Your task to perform on an android device: Go to accessibility settings Image 0: 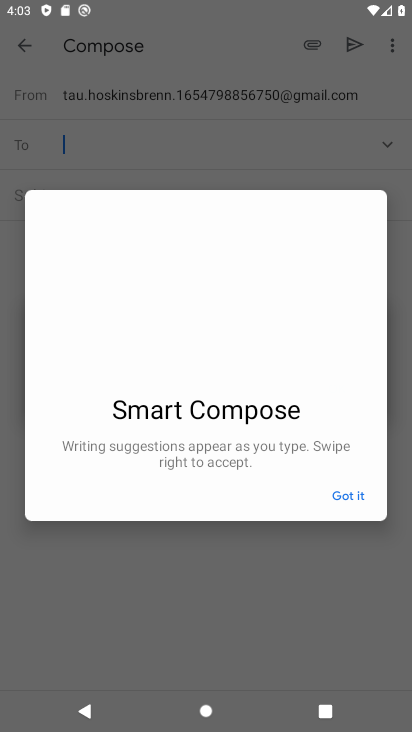
Step 0: click (204, 335)
Your task to perform on an android device: Go to accessibility settings Image 1: 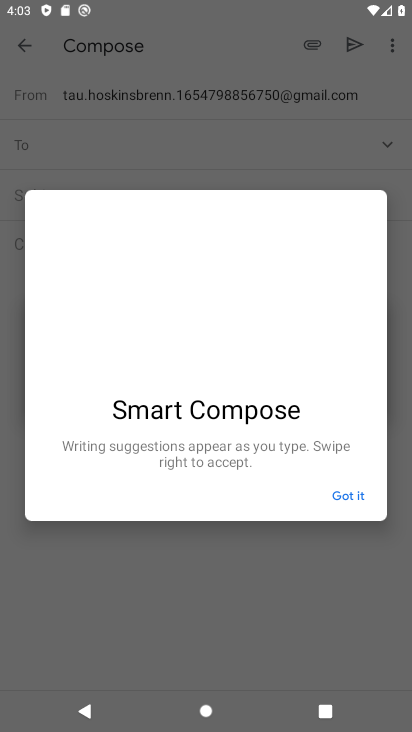
Step 1: click (351, 488)
Your task to perform on an android device: Go to accessibility settings Image 2: 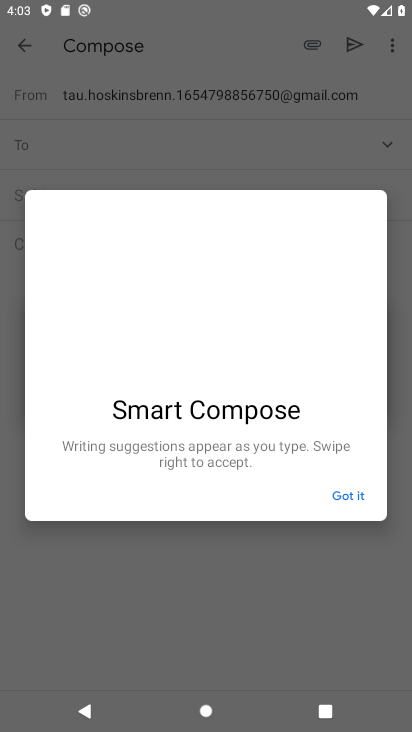
Step 2: click (351, 488)
Your task to perform on an android device: Go to accessibility settings Image 3: 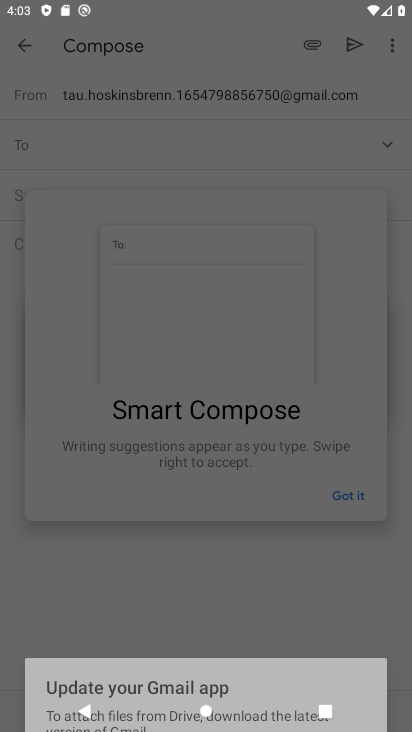
Step 3: click (351, 480)
Your task to perform on an android device: Go to accessibility settings Image 4: 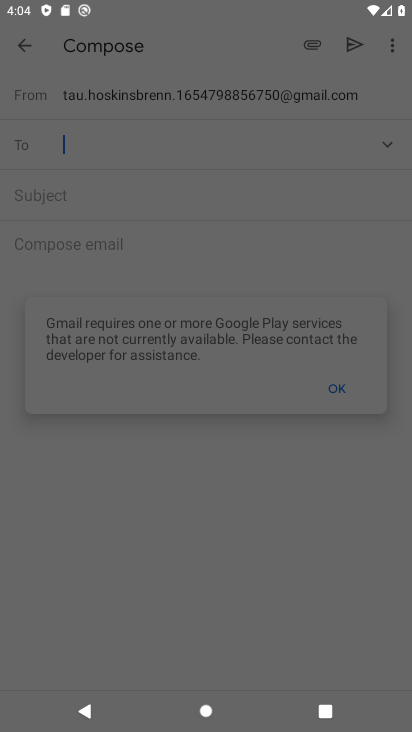
Step 4: press back button
Your task to perform on an android device: Go to accessibility settings Image 5: 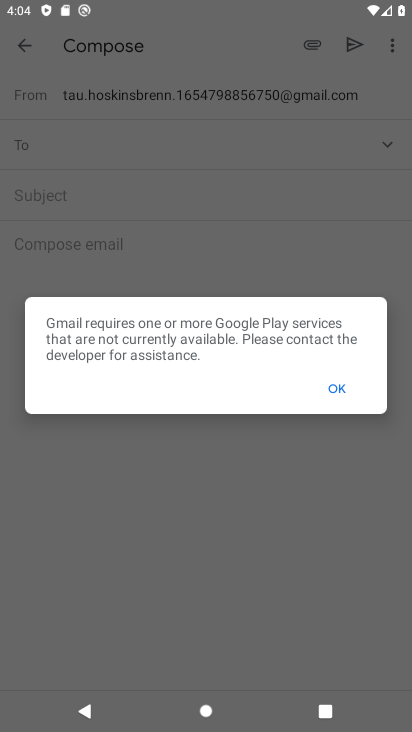
Step 5: press back button
Your task to perform on an android device: Go to accessibility settings Image 6: 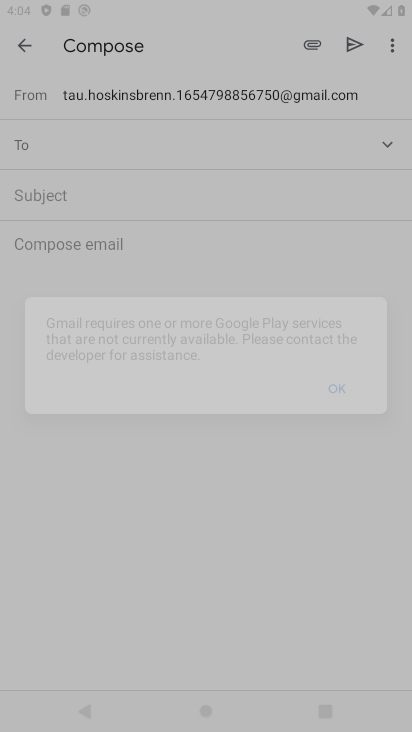
Step 6: press back button
Your task to perform on an android device: Go to accessibility settings Image 7: 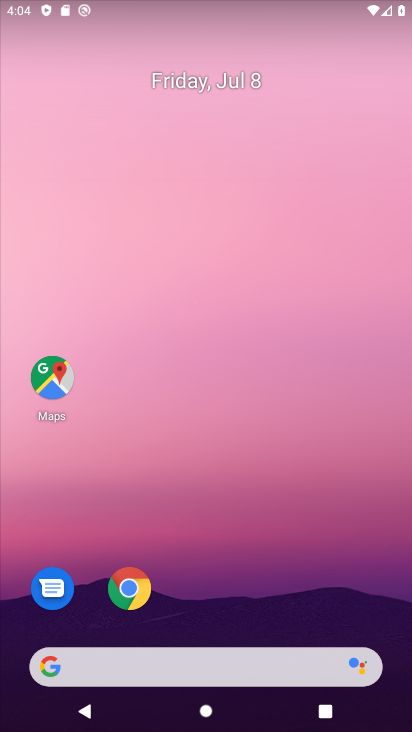
Step 7: drag from (232, 598) to (141, 199)
Your task to perform on an android device: Go to accessibility settings Image 8: 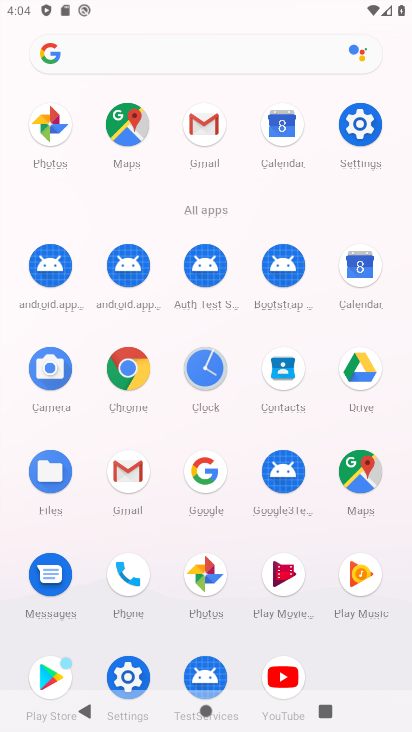
Step 8: click (351, 132)
Your task to perform on an android device: Go to accessibility settings Image 9: 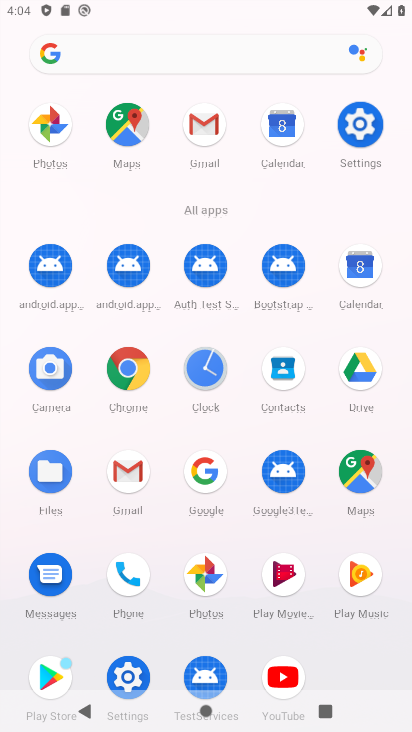
Step 9: click (351, 132)
Your task to perform on an android device: Go to accessibility settings Image 10: 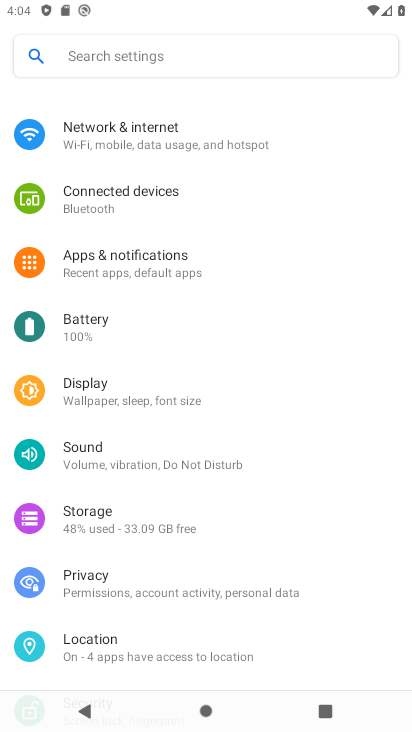
Step 10: click (354, 129)
Your task to perform on an android device: Go to accessibility settings Image 11: 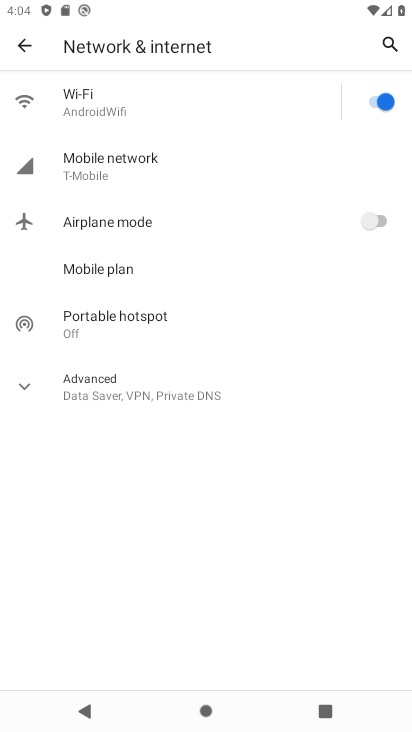
Step 11: click (16, 38)
Your task to perform on an android device: Go to accessibility settings Image 12: 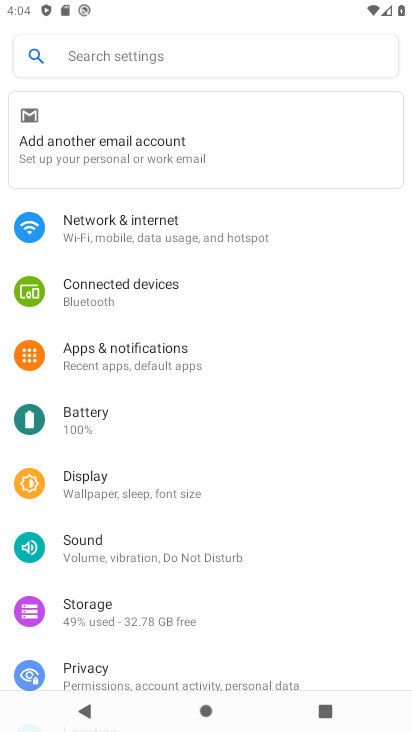
Step 12: drag from (161, 515) to (142, 308)
Your task to perform on an android device: Go to accessibility settings Image 13: 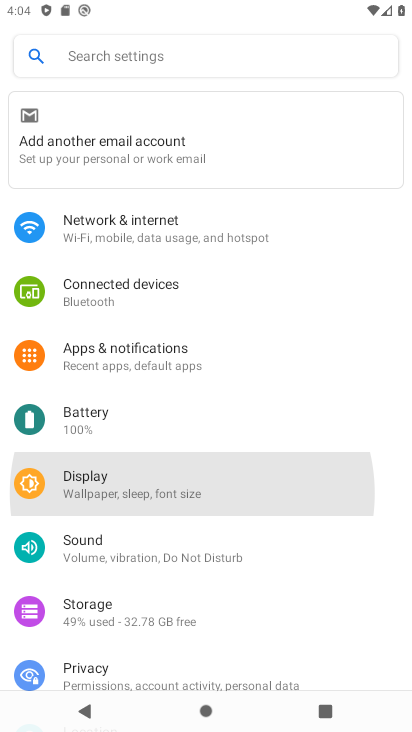
Step 13: drag from (200, 387) to (182, 185)
Your task to perform on an android device: Go to accessibility settings Image 14: 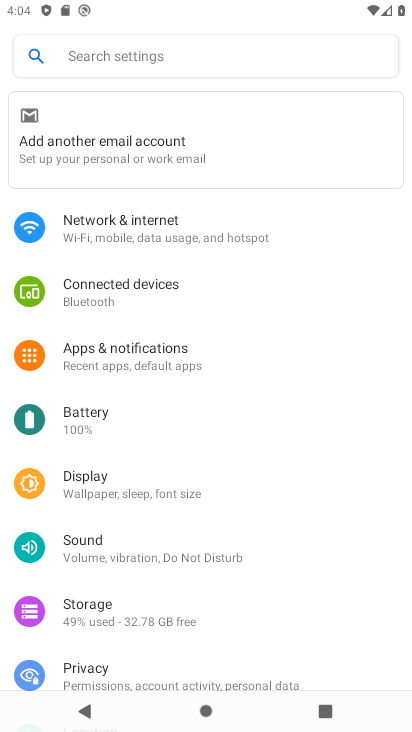
Step 14: drag from (188, 464) to (184, 239)
Your task to perform on an android device: Go to accessibility settings Image 15: 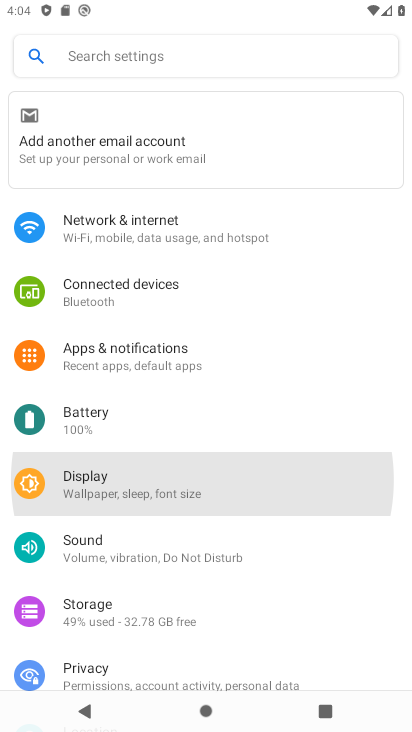
Step 15: drag from (197, 522) to (158, 198)
Your task to perform on an android device: Go to accessibility settings Image 16: 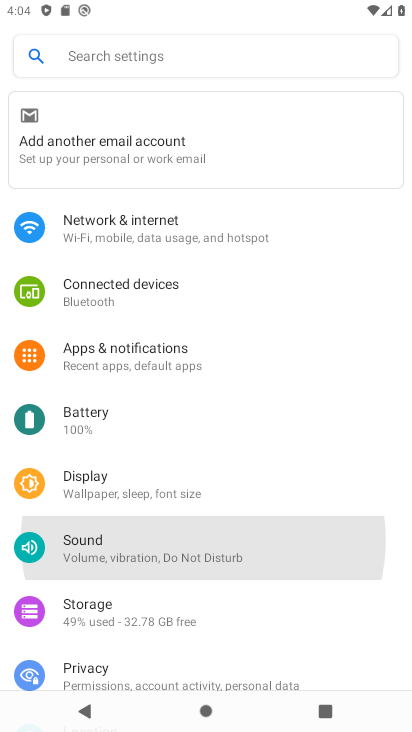
Step 16: drag from (173, 513) to (129, 130)
Your task to perform on an android device: Go to accessibility settings Image 17: 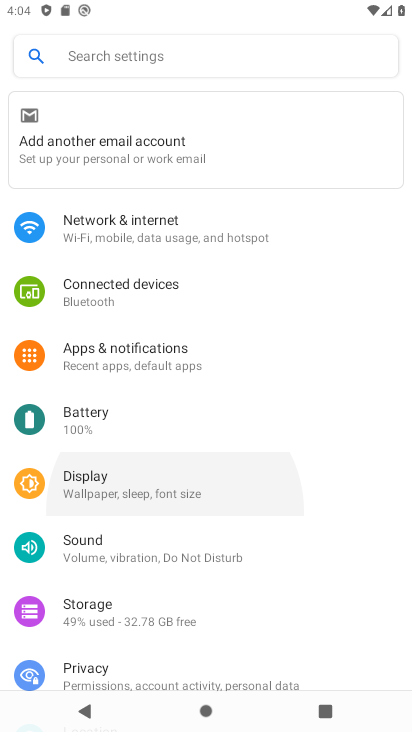
Step 17: drag from (164, 605) to (200, 157)
Your task to perform on an android device: Go to accessibility settings Image 18: 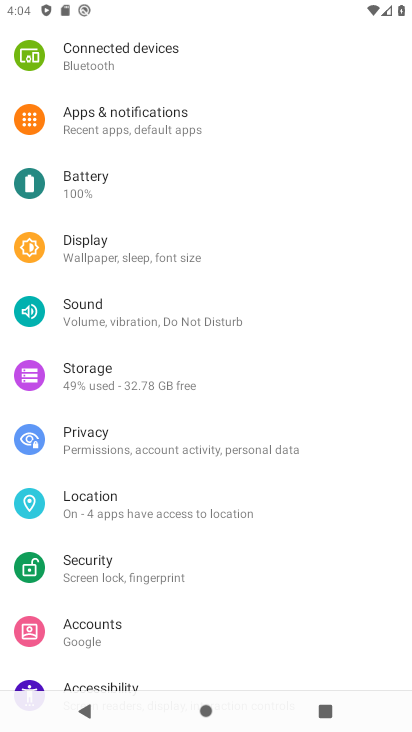
Step 18: drag from (184, 172) to (194, 39)
Your task to perform on an android device: Go to accessibility settings Image 19: 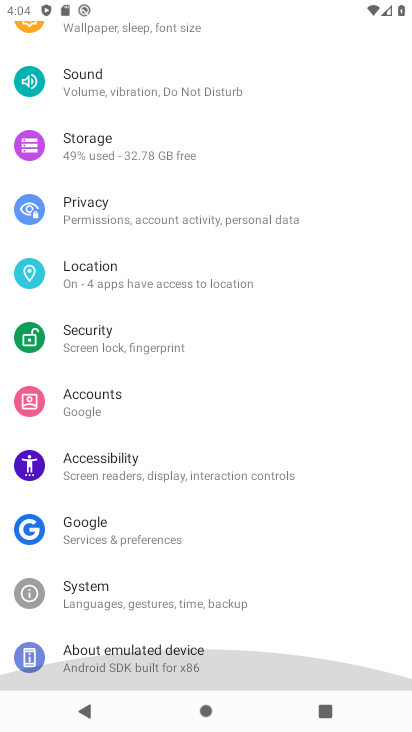
Step 19: click (216, 211)
Your task to perform on an android device: Go to accessibility settings Image 20: 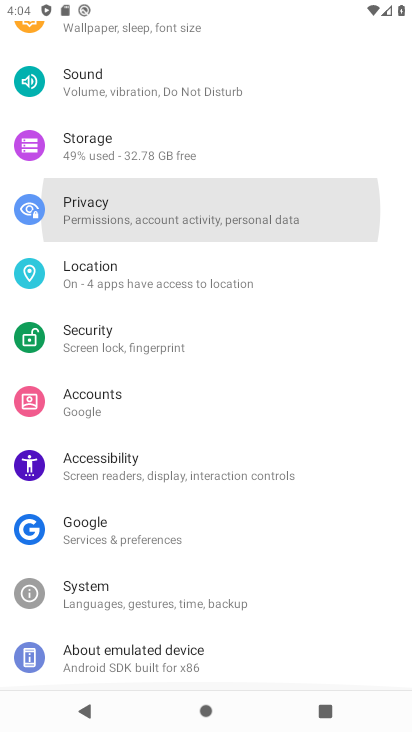
Step 20: drag from (233, 541) to (196, 232)
Your task to perform on an android device: Go to accessibility settings Image 21: 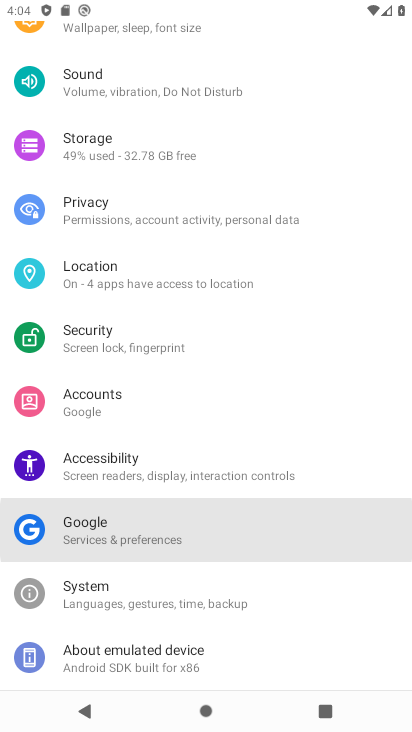
Step 21: drag from (150, 364) to (182, 92)
Your task to perform on an android device: Go to accessibility settings Image 22: 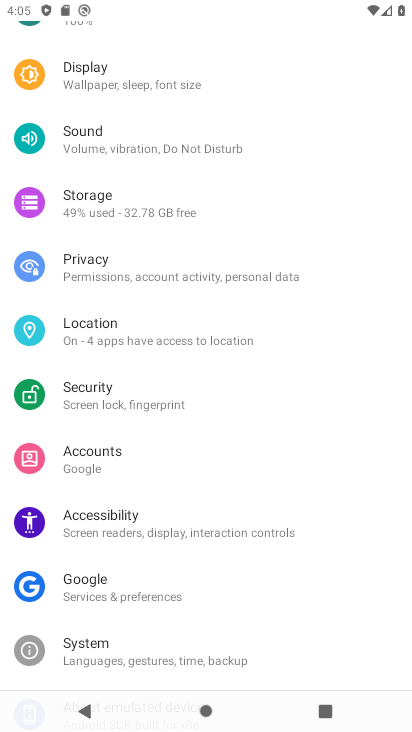
Step 22: drag from (122, 374) to (118, 240)
Your task to perform on an android device: Go to accessibility settings Image 23: 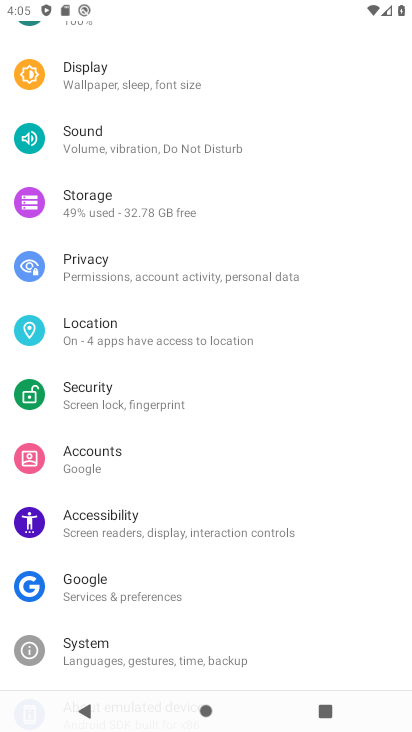
Step 23: click (101, 534)
Your task to perform on an android device: Go to accessibility settings Image 24: 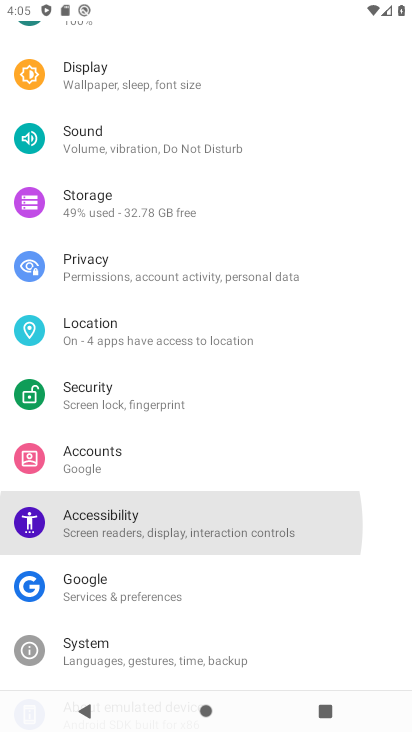
Step 24: click (101, 534)
Your task to perform on an android device: Go to accessibility settings Image 25: 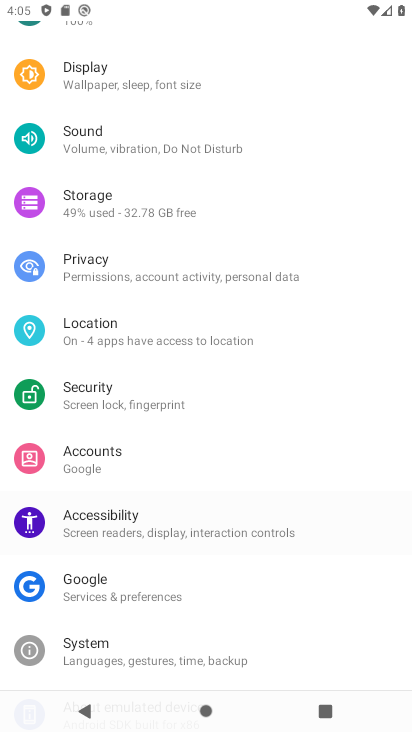
Step 25: click (102, 534)
Your task to perform on an android device: Go to accessibility settings Image 26: 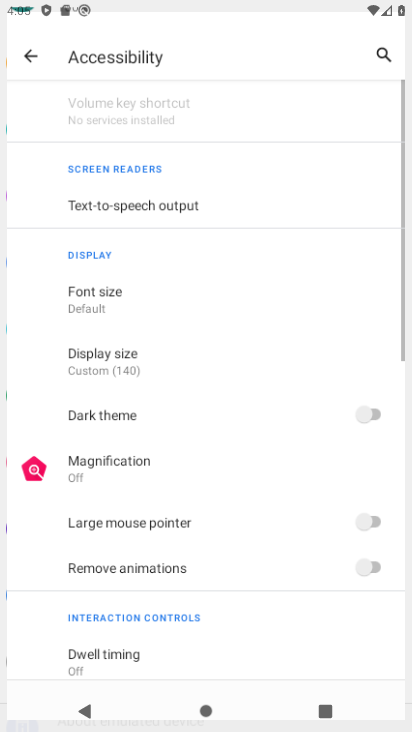
Step 26: click (102, 534)
Your task to perform on an android device: Go to accessibility settings Image 27: 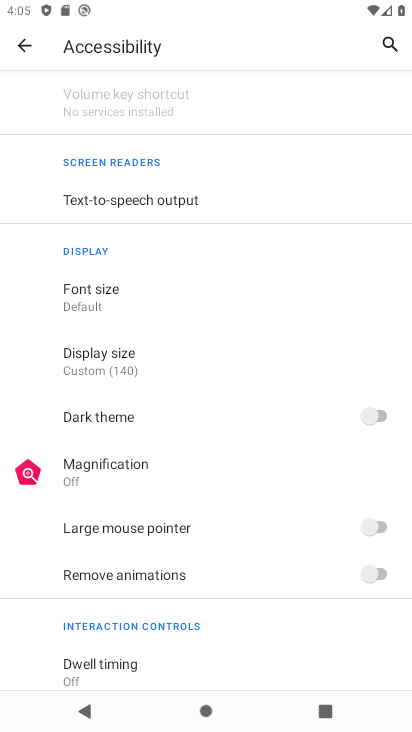
Step 27: task complete